Your task to perform on an android device: Open sound settings Image 0: 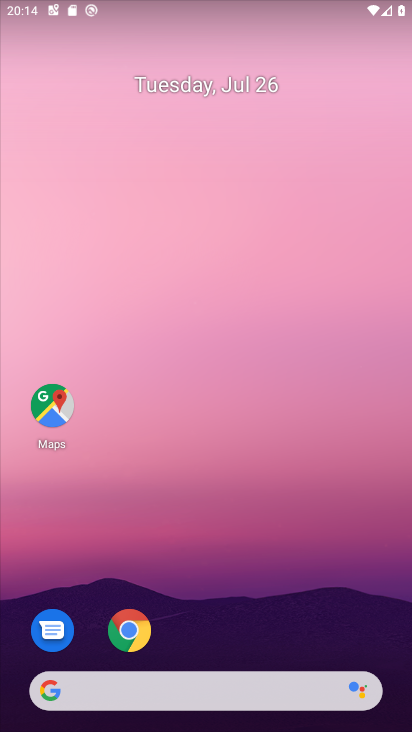
Step 0: drag from (391, 718) to (337, 14)
Your task to perform on an android device: Open sound settings Image 1: 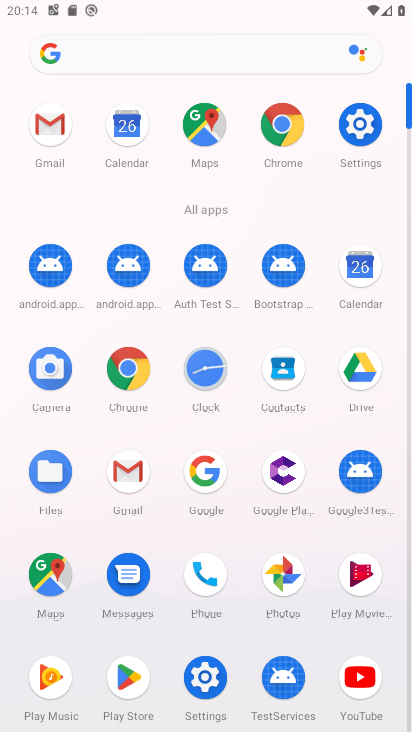
Step 1: click (356, 128)
Your task to perform on an android device: Open sound settings Image 2: 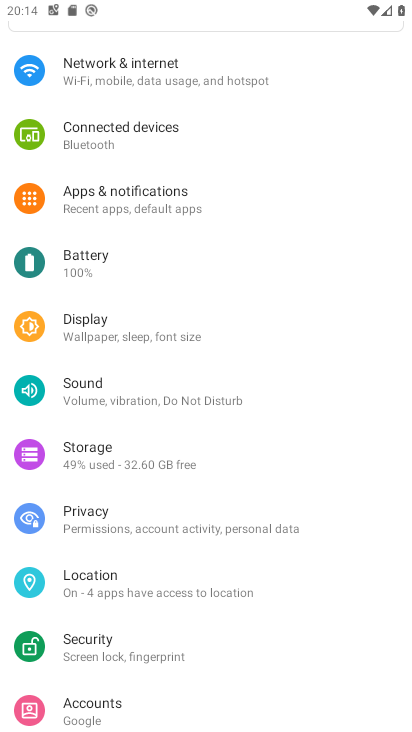
Step 2: click (91, 394)
Your task to perform on an android device: Open sound settings Image 3: 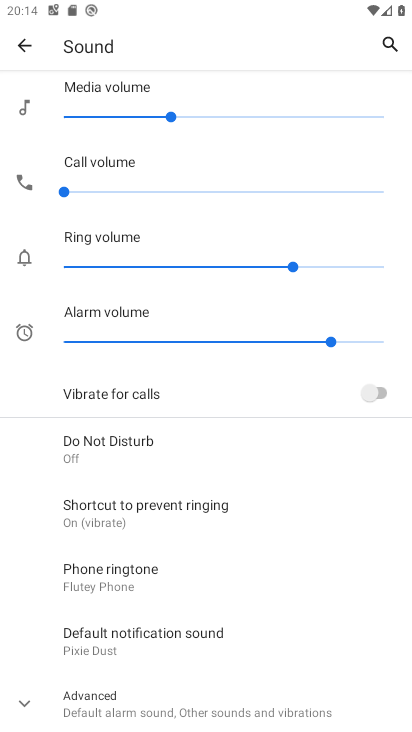
Step 3: click (36, 694)
Your task to perform on an android device: Open sound settings Image 4: 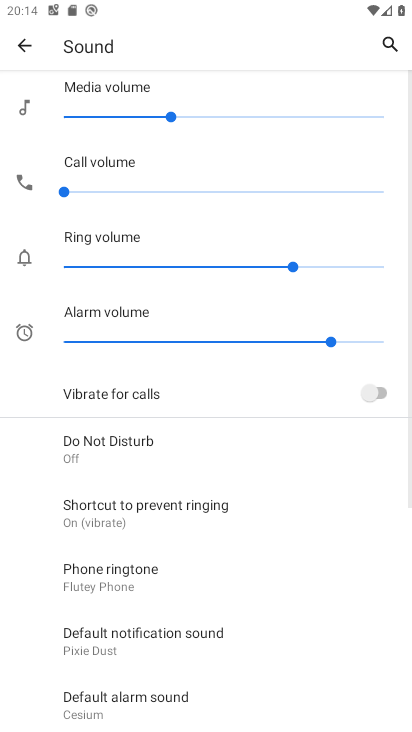
Step 4: task complete